Your task to perform on an android device: empty trash in the gmail app Image 0: 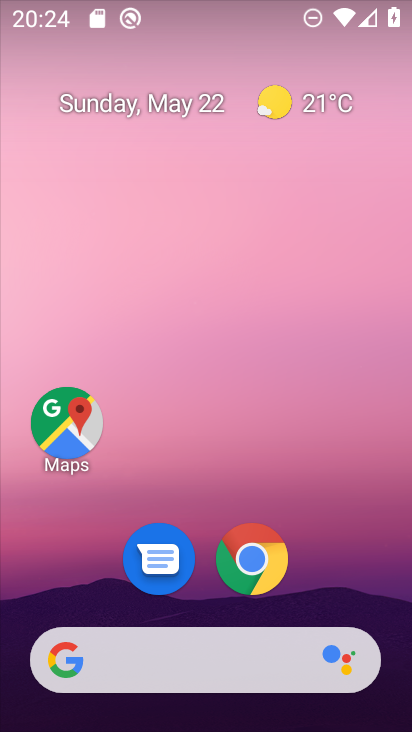
Step 0: press home button
Your task to perform on an android device: empty trash in the gmail app Image 1: 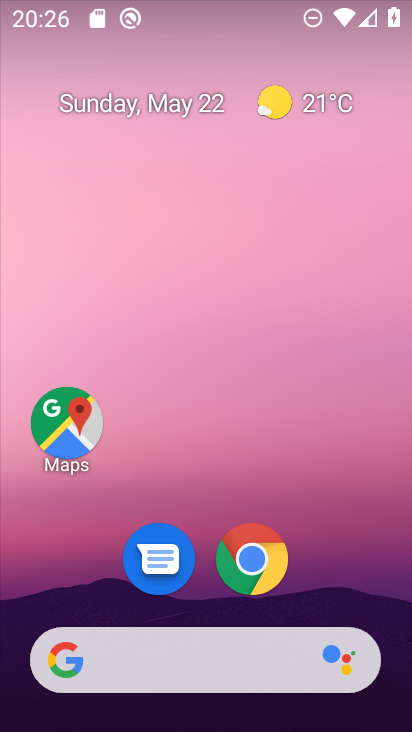
Step 1: drag from (243, 708) to (274, 45)
Your task to perform on an android device: empty trash in the gmail app Image 2: 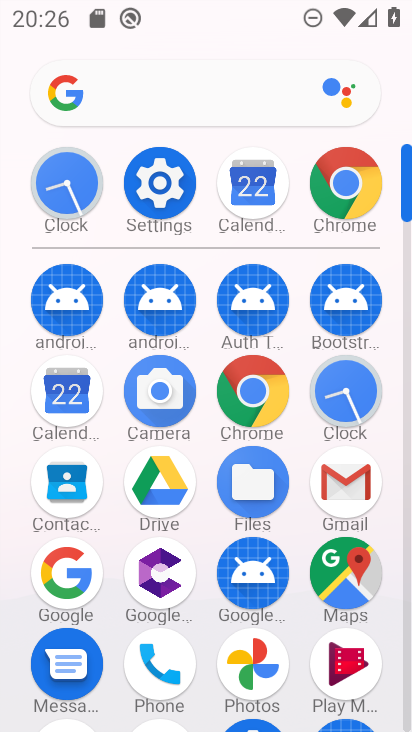
Step 2: click (337, 488)
Your task to perform on an android device: empty trash in the gmail app Image 3: 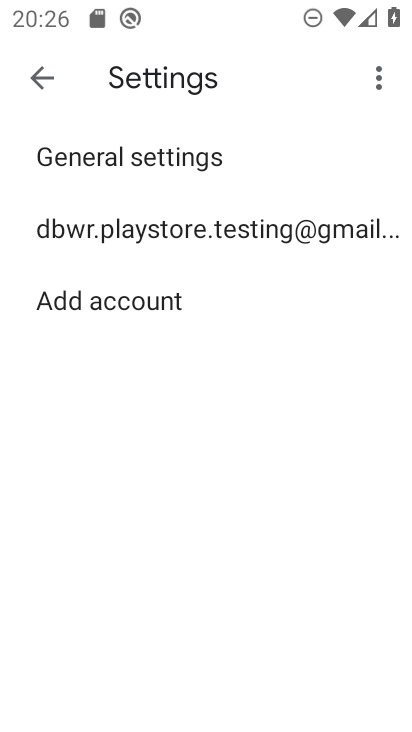
Step 3: click (167, 227)
Your task to perform on an android device: empty trash in the gmail app Image 4: 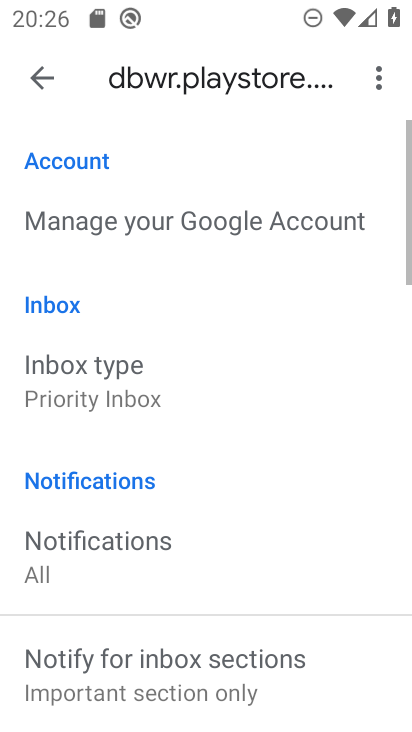
Step 4: click (37, 83)
Your task to perform on an android device: empty trash in the gmail app Image 5: 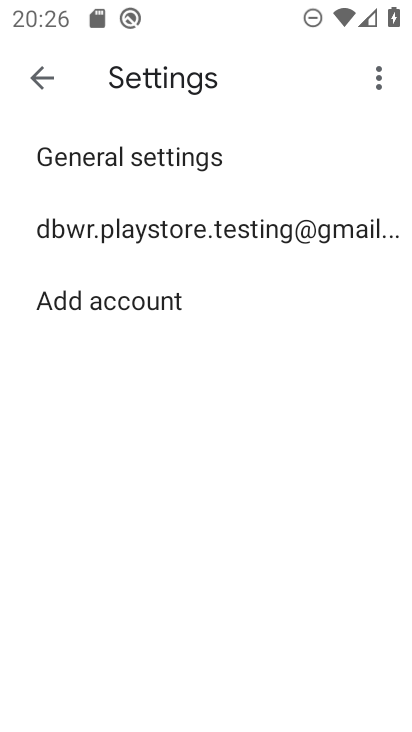
Step 5: click (37, 81)
Your task to perform on an android device: empty trash in the gmail app Image 6: 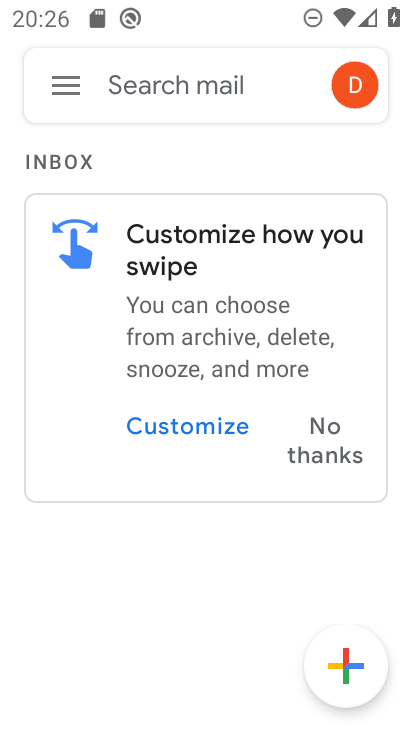
Step 6: click (67, 95)
Your task to perform on an android device: empty trash in the gmail app Image 7: 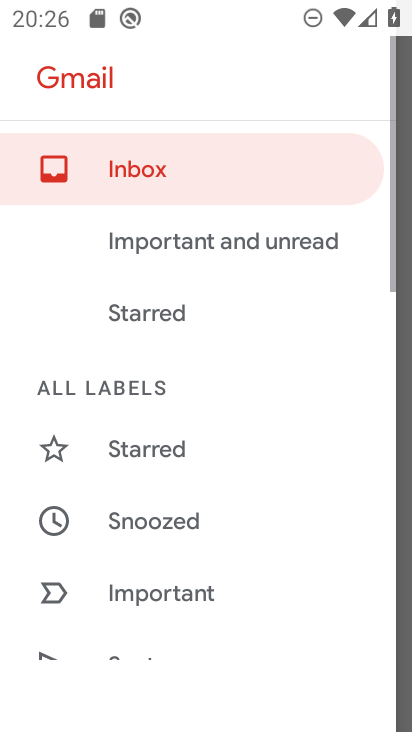
Step 7: drag from (218, 583) to (184, 160)
Your task to perform on an android device: empty trash in the gmail app Image 8: 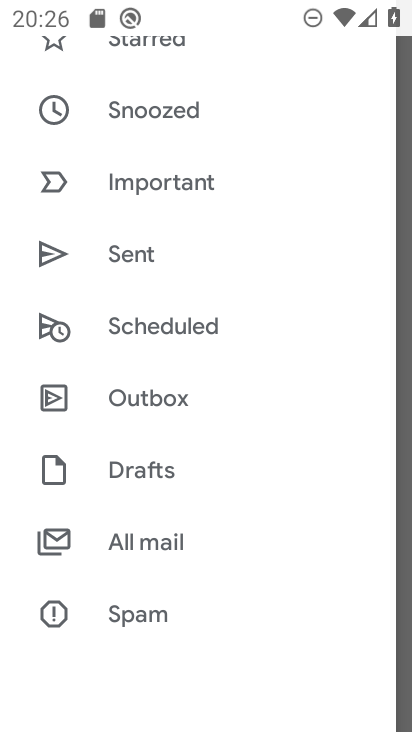
Step 8: drag from (234, 531) to (225, 248)
Your task to perform on an android device: empty trash in the gmail app Image 9: 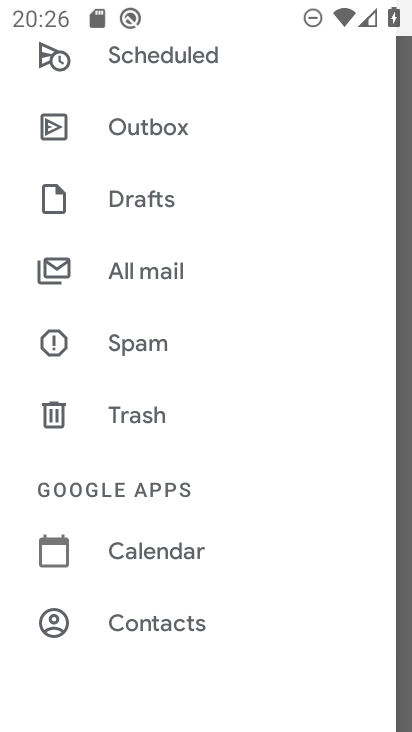
Step 9: click (170, 423)
Your task to perform on an android device: empty trash in the gmail app Image 10: 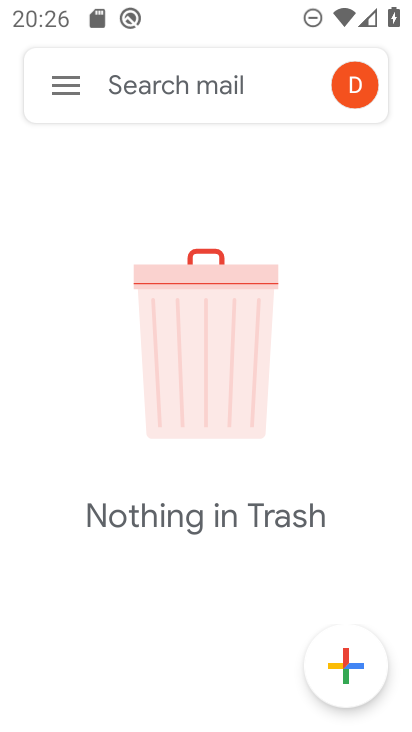
Step 10: task complete